Your task to perform on an android device: Go to network settings Image 0: 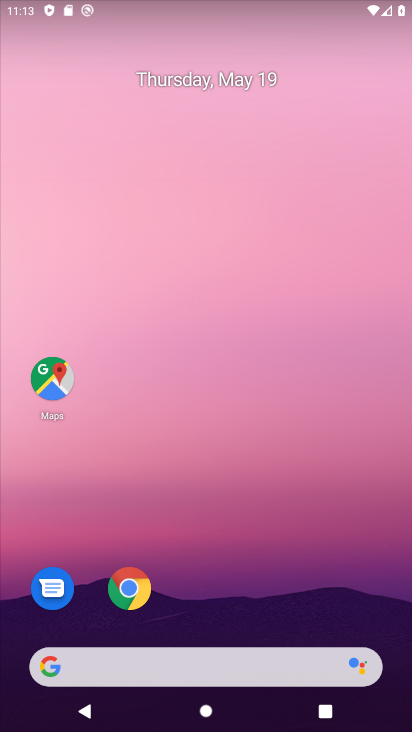
Step 0: drag from (276, 582) to (255, 129)
Your task to perform on an android device: Go to network settings Image 1: 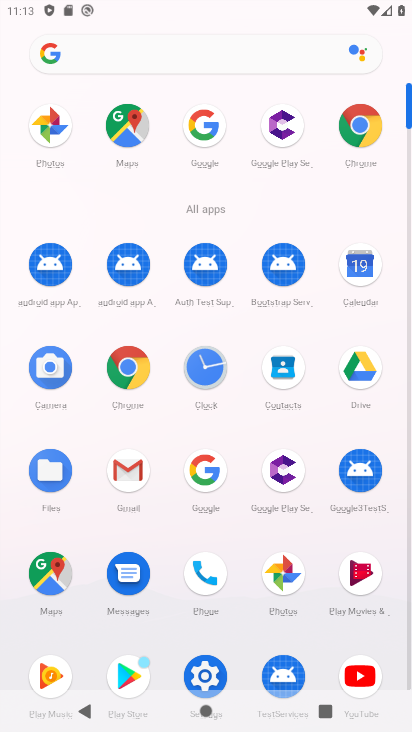
Step 1: click (212, 677)
Your task to perform on an android device: Go to network settings Image 2: 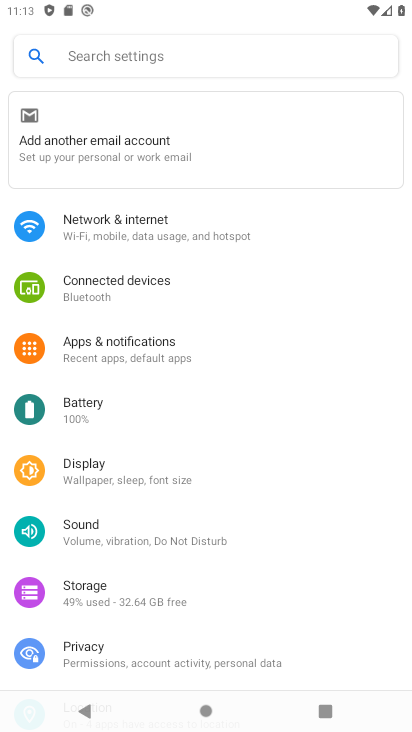
Step 2: click (142, 219)
Your task to perform on an android device: Go to network settings Image 3: 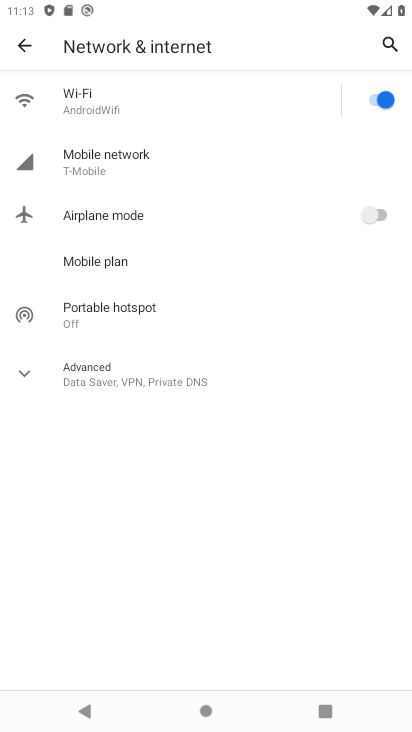
Step 3: task complete